Your task to perform on an android device: What's on my calendar today? Image 0: 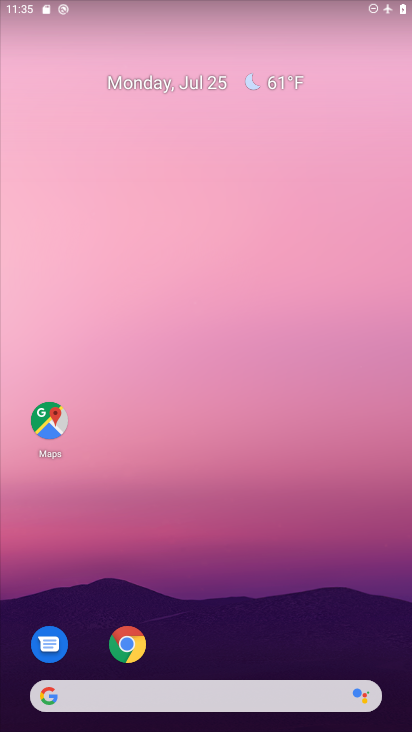
Step 0: drag from (225, 540) to (228, 342)
Your task to perform on an android device: What's on my calendar today? Image 1: 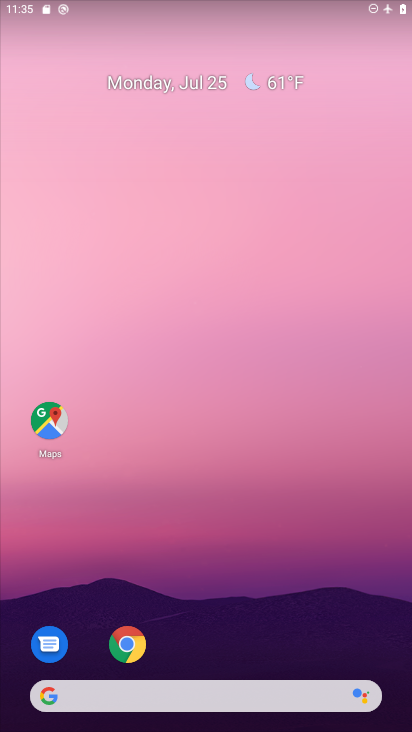
Step 1: drag from (205, 633) to (221, 54)
Your task to perform on an android device: What's on my calendar today? Image 2: 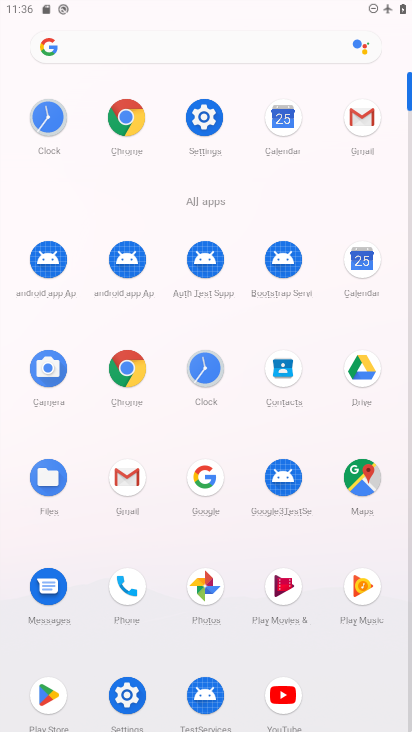
Step 2: click (365, 249)
Your task to perform on an android device: What's on my calendar today? Image 3: 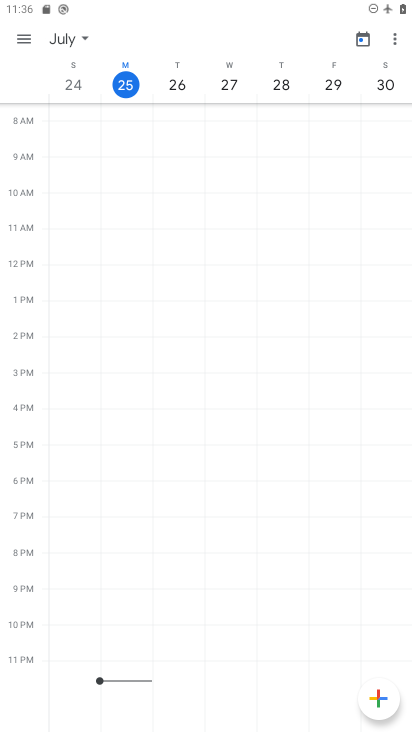
Step 3: click (163, 82)
Your task to perform on an android device: What's on my calendar today? Image 4: 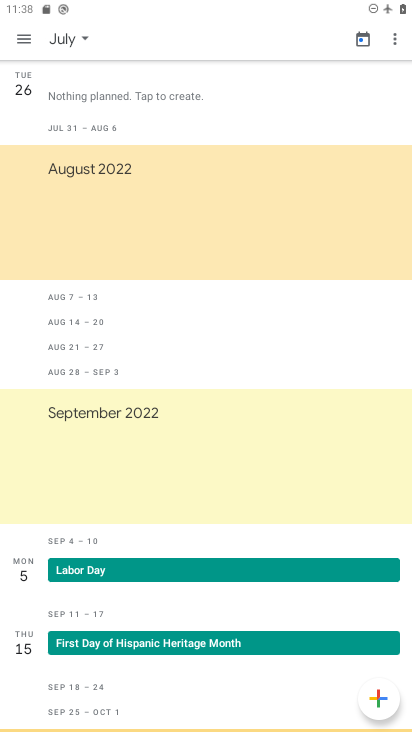
Step 4: task complete